Your task to perform on an android device: Open location settings Image 0: 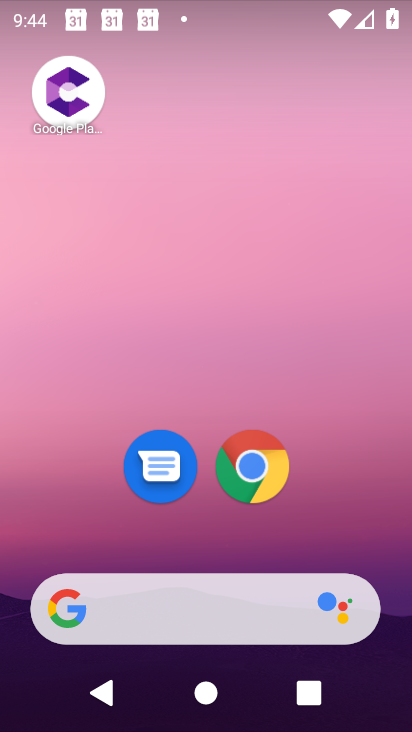
Step 0: drag from (345, 463) to (377, 46)
Your task to perform on an android device: Open location settings Image 1: 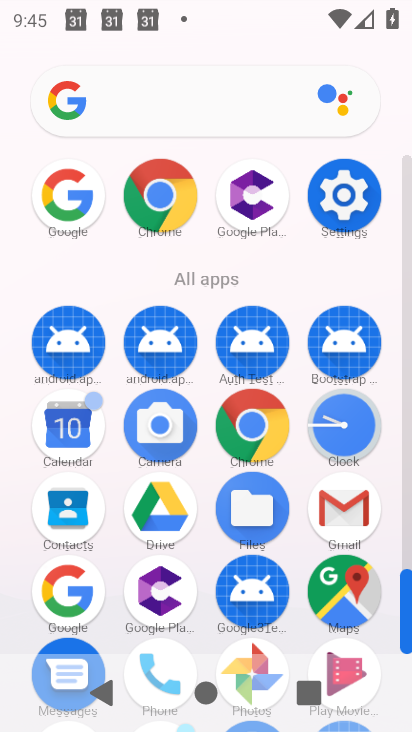
Step 1: click (327, 186)
Your task to perform on an android device: Open location settings Image 2: 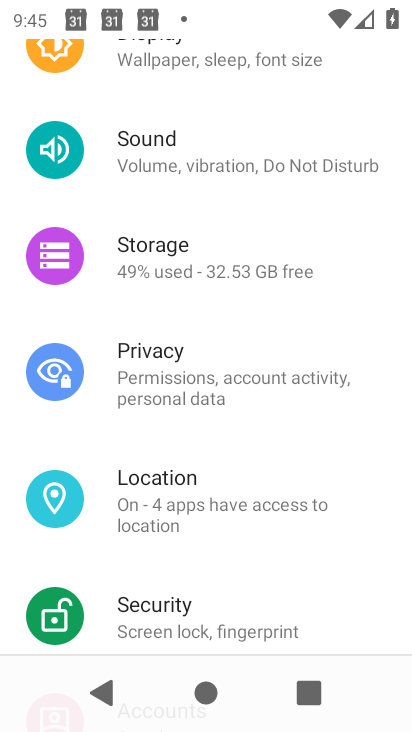
Step 2: drag from (173, 556) to (271, 122)
Your task to perform on an android device: Open location settings Image 3: 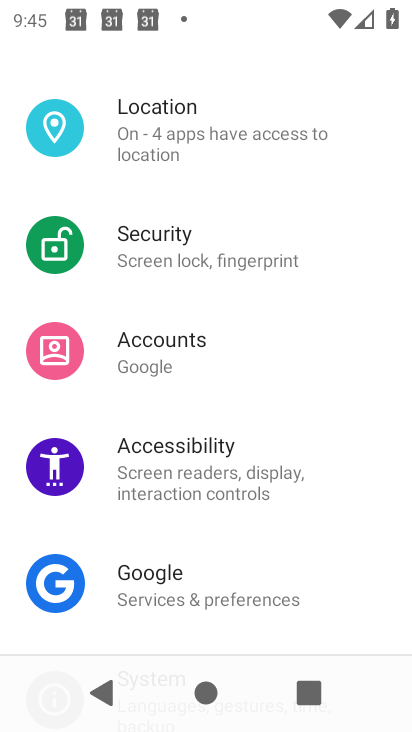
Step 3: drag from (249, 546) to (271, 387)
Your task to perform on an android device: Open location settings Image 4: 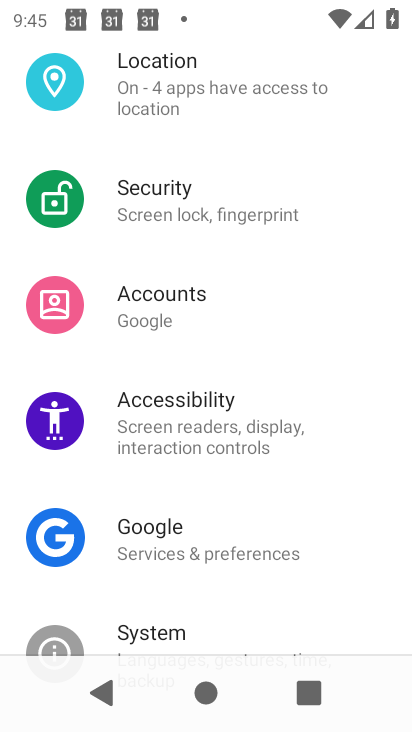
Step 4: click (191, 105)
Your task to perform on an android device: Open location settings Image 5: 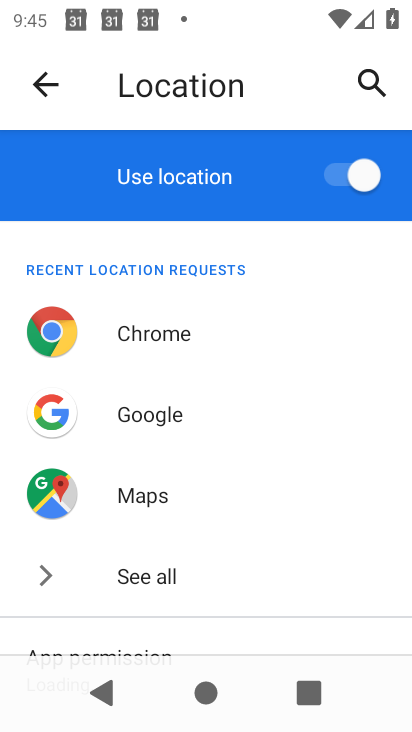
Step 5: task complete